Your task to perform on an android device: toggle notifications settings in the gmail app Image 0: 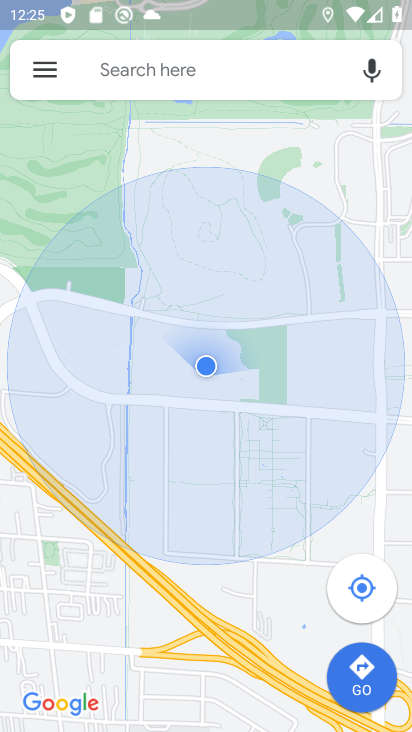
Step 0: press home button
Your task to perform on an android device: toggle notifications settings in the gmail app Image 1: 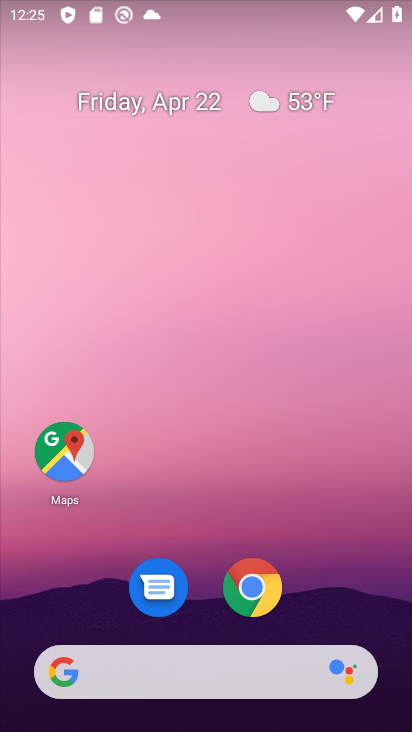
Step 1: drag from (355, 604) to (373, 123)
Your task to perform on an android device: toggle notifications settings in the gmail app Image 2: 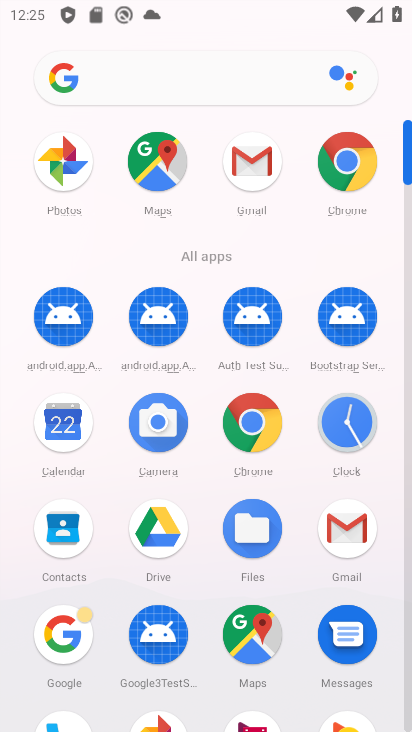
Step 2: click (352, 519)
Your task to perform on an android device: toggle notifications settings in the gmail app Image 3: 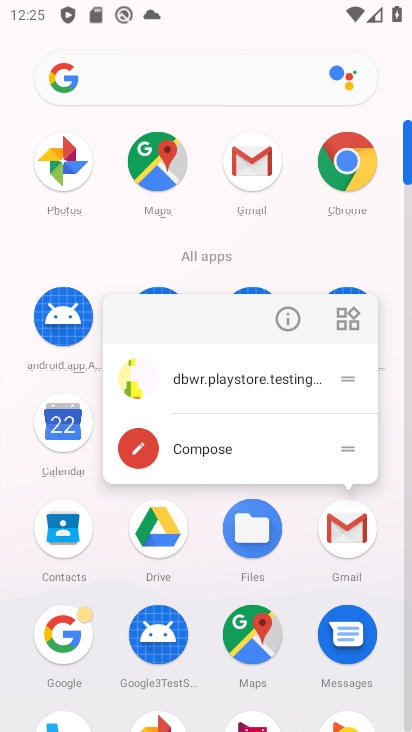
Step 3: click (289, 313)
Your task to perform on an android device: toggle notifications settings in the gmail app Image 4: 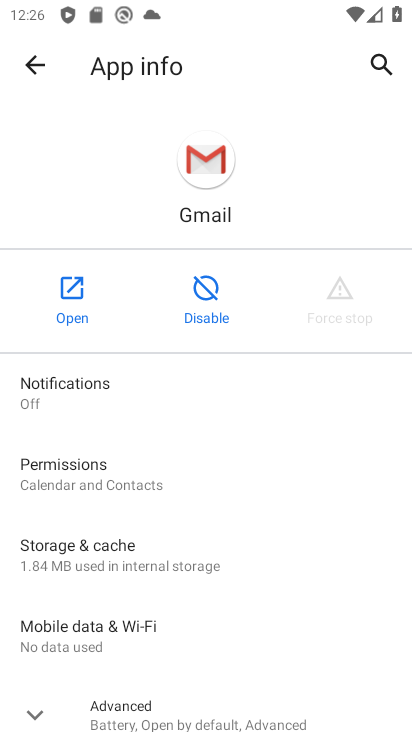
Step 4: click (98, 389)
Your task to perform on an android device: toggle notifications settings in the gmail app Image 5: 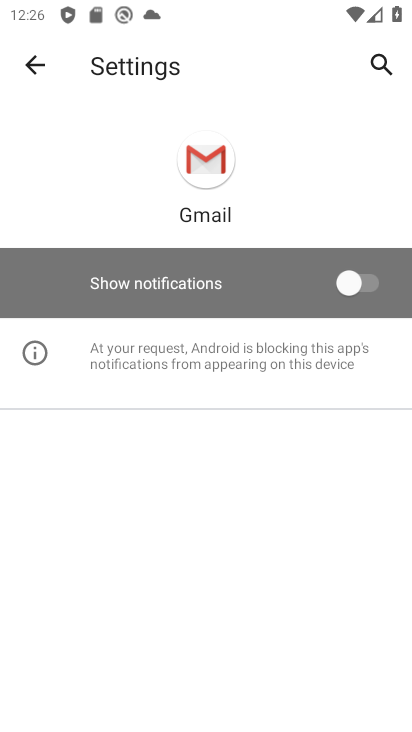
Step 5: click (357, 277)
Your task to perform on an android device: toggle notifications settings in the gmail app Image 6: 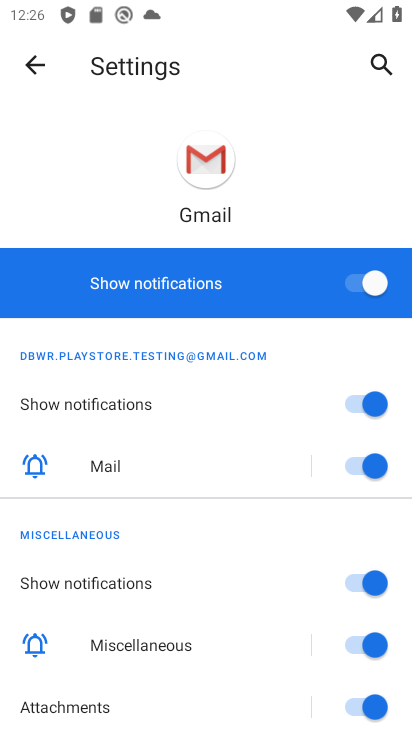
Step 6: task complete